Your task to perform on an android device: set default search engine in the chrome app Image 0: 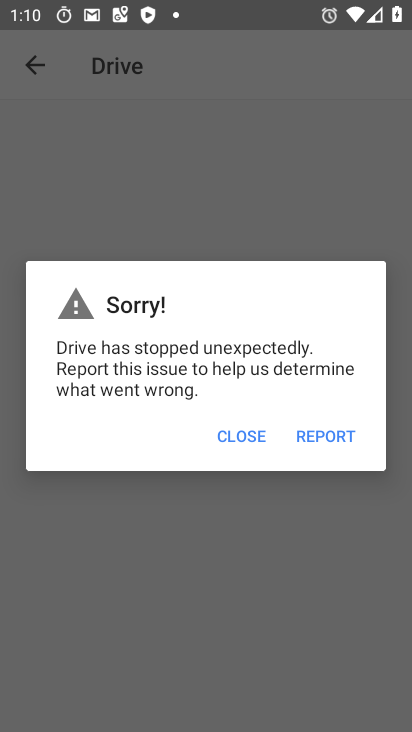
Step 0: press home button
Your task to perform on an android device: set default search engine in the chrome app Image 1: 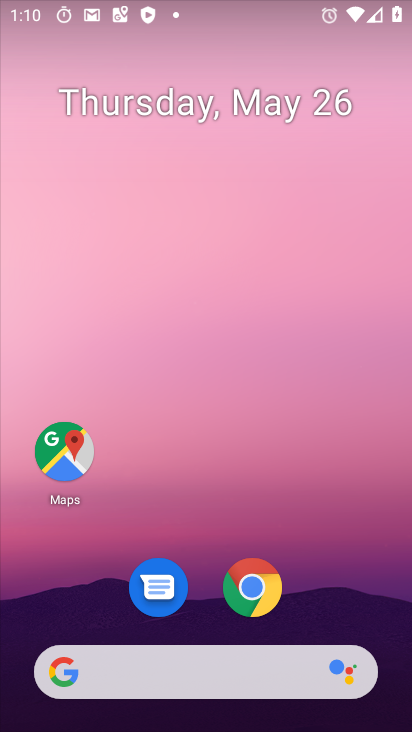
Step 1: drag from (288, 607) to (228, 158)
Your task to perform on an android device: set default search engine in the chrome app Image 2: 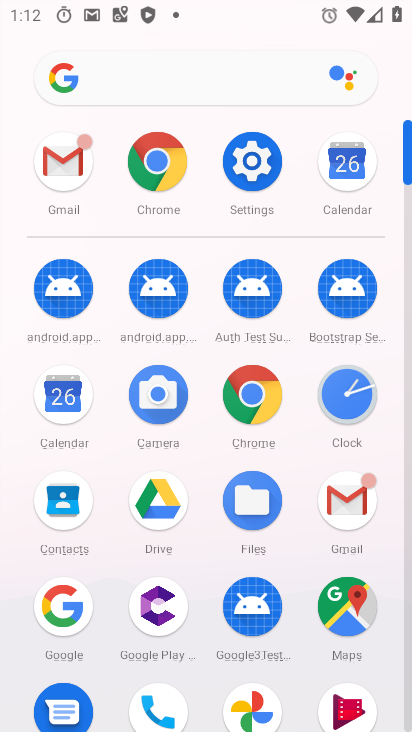
Step 2: click (193, 161)
Your task to perform on an android device: set default search engine in the chrome app Image 3: 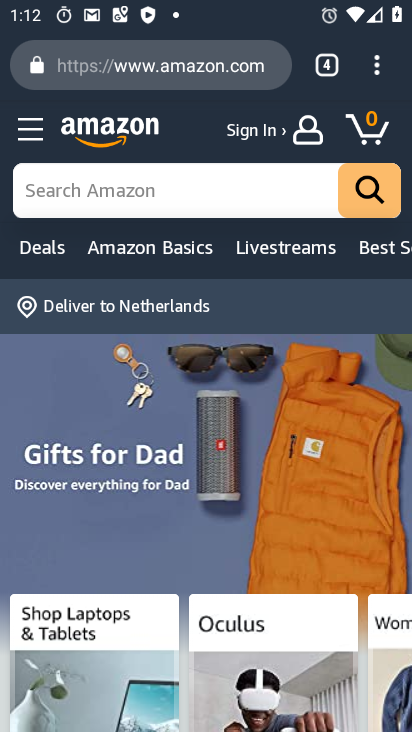
Step 3: click (375, 89)
Your task to perform on an android device: set default search engine in the chrome app Image 4: 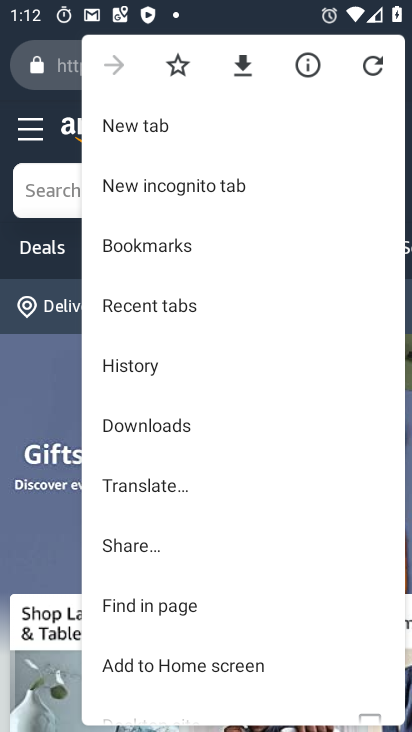
Step 4: drag from (136, 656) to (208, 542)
Your task to perform on an android device: set default search engine in the chrome app Image 5: 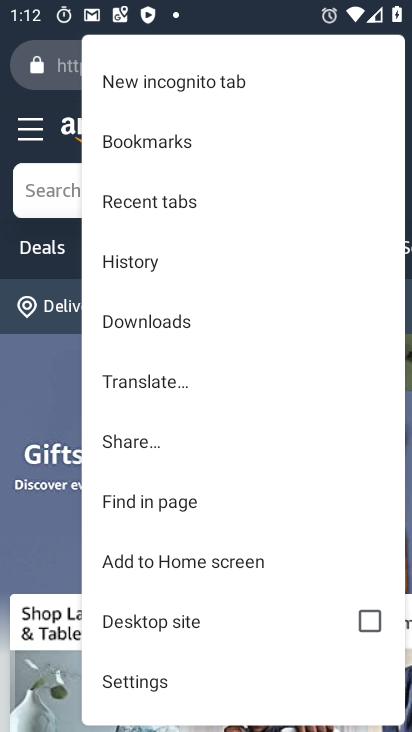
Step 5: click (143, 685)
Your task to perform on an android device: set default search engine in the chrome app Image 6: 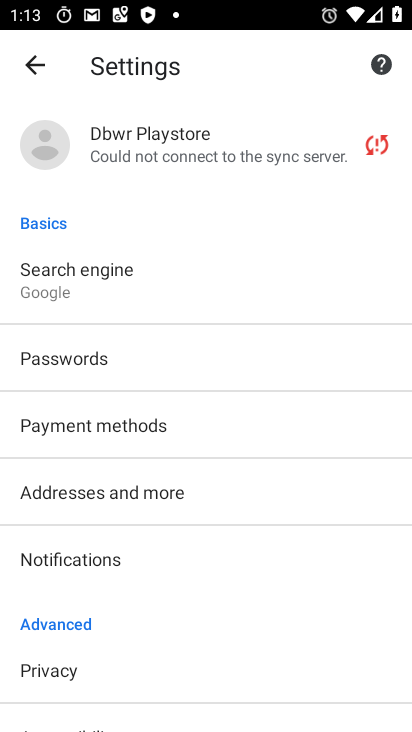
Step 6: click (155, 665)
Your task to perform on an android device: set default search engine in the chrome app Image 7: 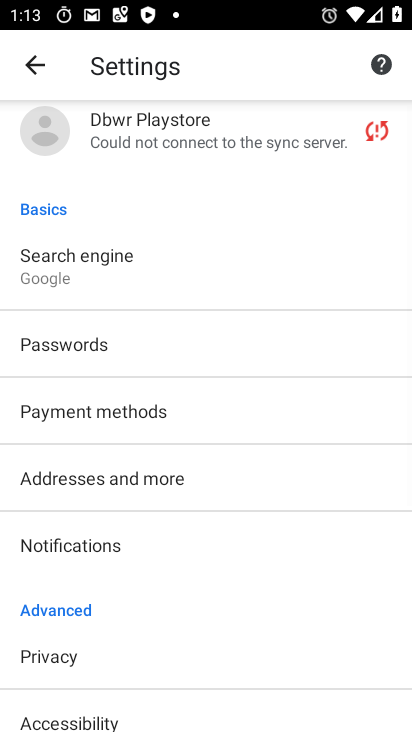
Step 7: click (167, 299)
Your task to perform on an android device: set default search engine in the chrome app Image 8: 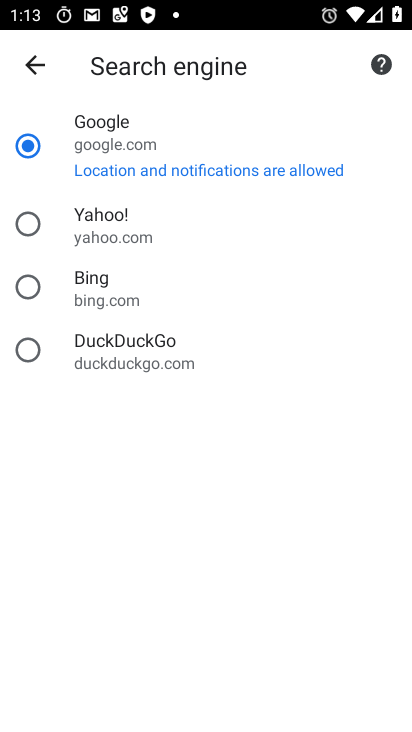
Step 8: task complete